Your task to perform on an android device: turn off data saver in the chrome app Image 0: 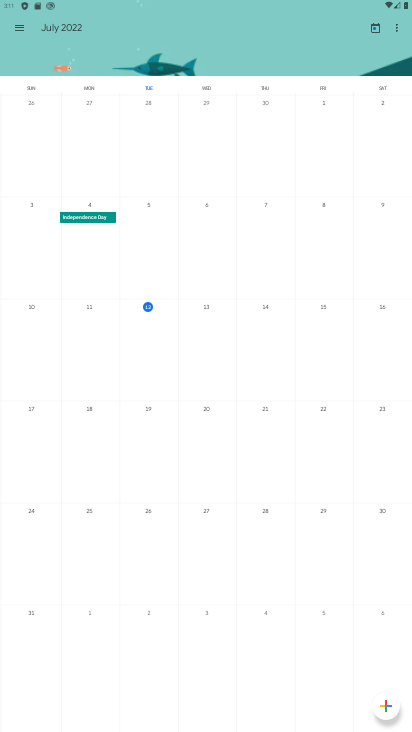
Step 0: press home button
Your task to perform on an android device: turn off data saver in the chrome app Image 1: 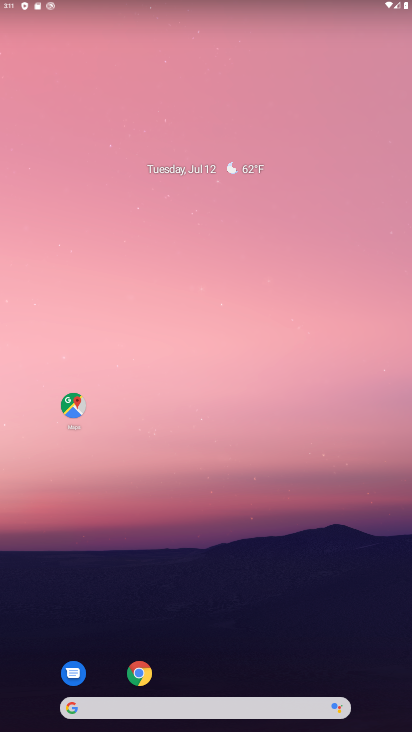
Step 1: drag from (199, 669) to (241, 112)
Your task to perform on an android device: turn off data saver in the chrome app Image 2: 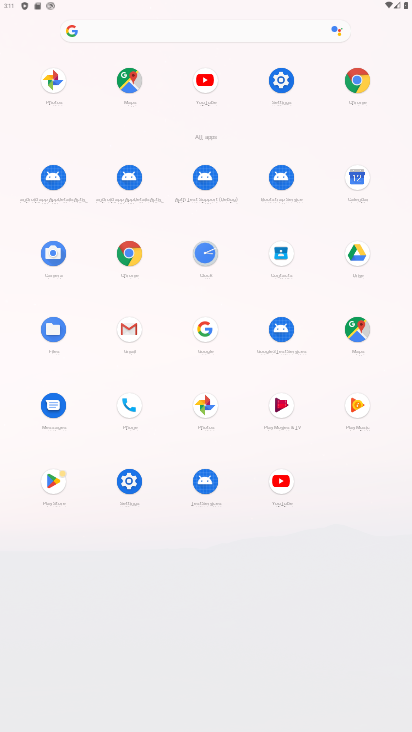
Step 2: click (136, 261)
Your task to perform on an android device: turn off data saver in the chrome app Image 3: 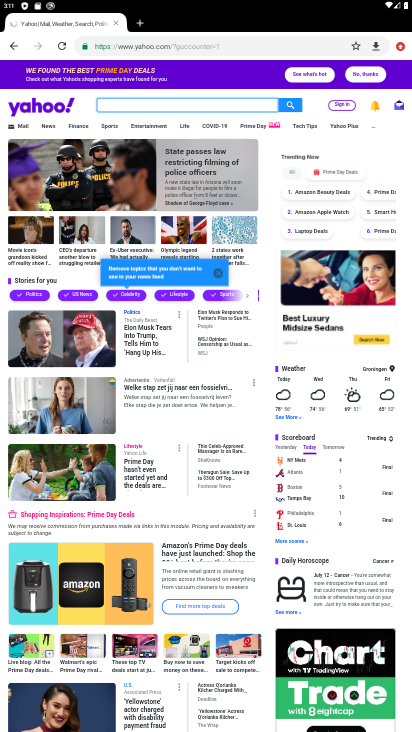
Step 3: drag from (405, 45) to (321, 328)
Your task to perform on an android device: turn off data saver in the chrome app Image 4: 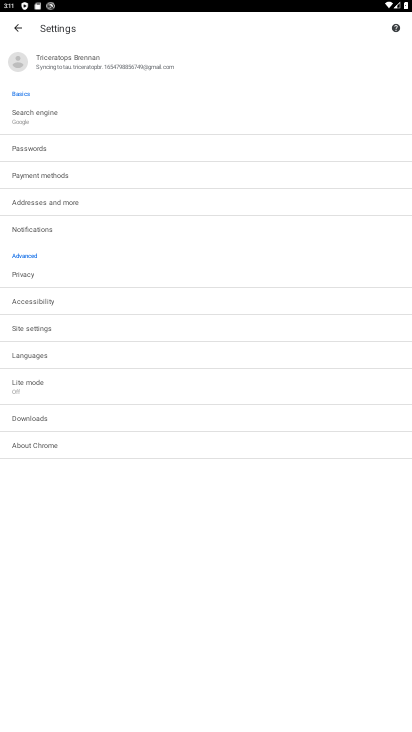
Step 4: click (58, 380)
Your task to perform on an android device: turn off data saver in the chrome app Image 5: 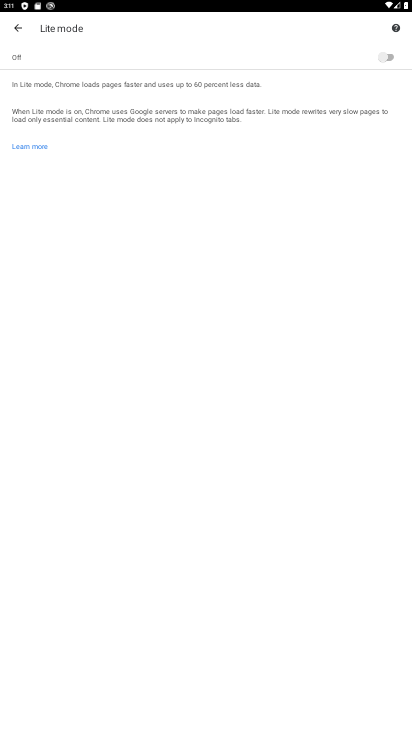
Step 5: task complete